Your task to perform on an android device: Check the weather Image 0: 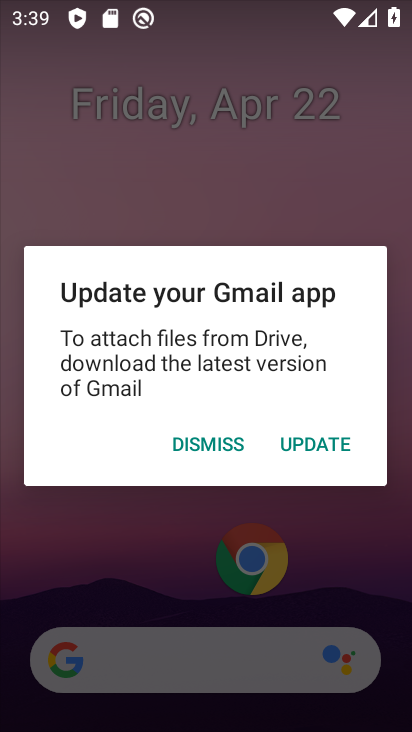
Step 0: press home button
Your task to perform on an android device: Check the weather Image 1: 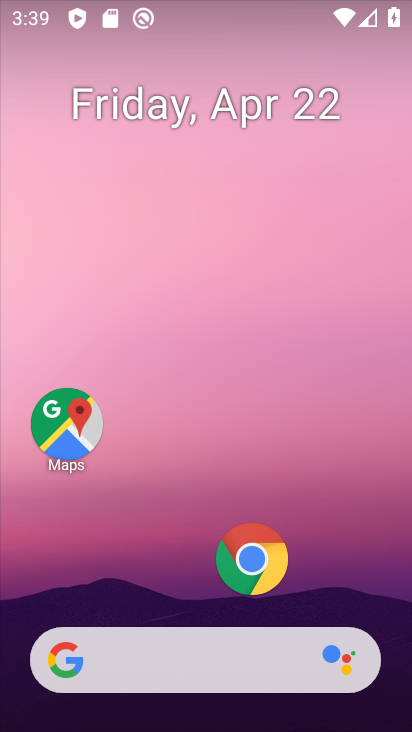
Step 1: click (130, 653)
Your task to perform on an android device: Check the weather Image 2: 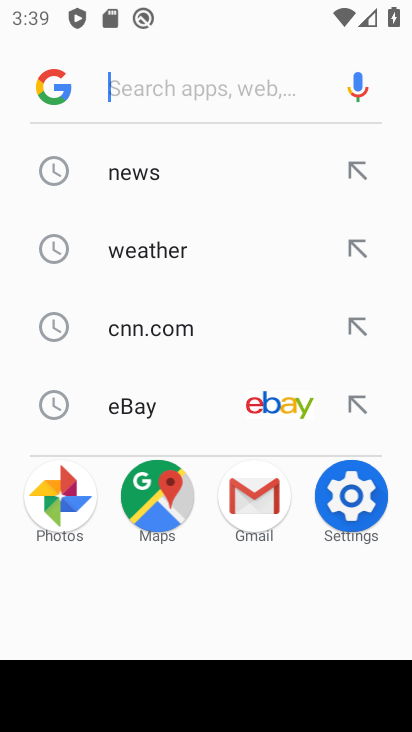
Step 2: click (155, 253)
Your task to perform on an android device: Check the weather Image 3: 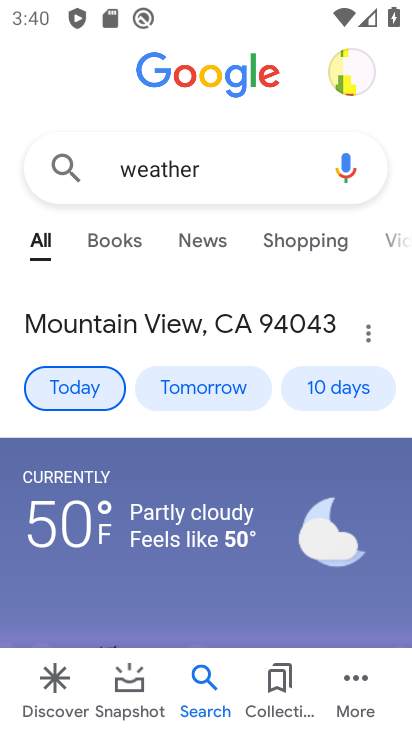
Step 3: task complete